Your task to perform on an android device: show emergency info Image 0: 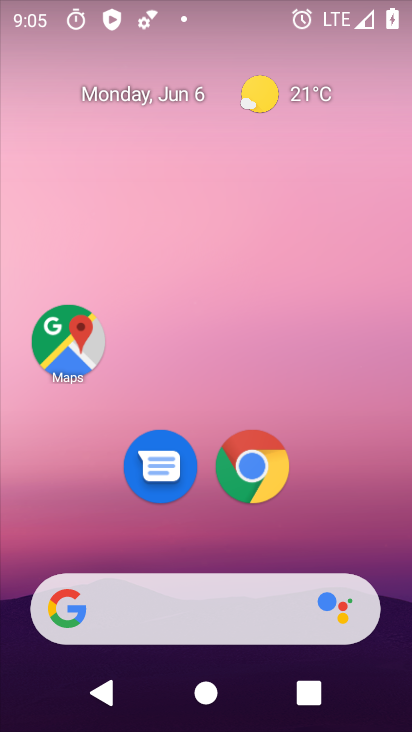
Step 0: drag from (275, 272) to (289, 228)
Your task to perform on an android device: show emergency info Image 1: 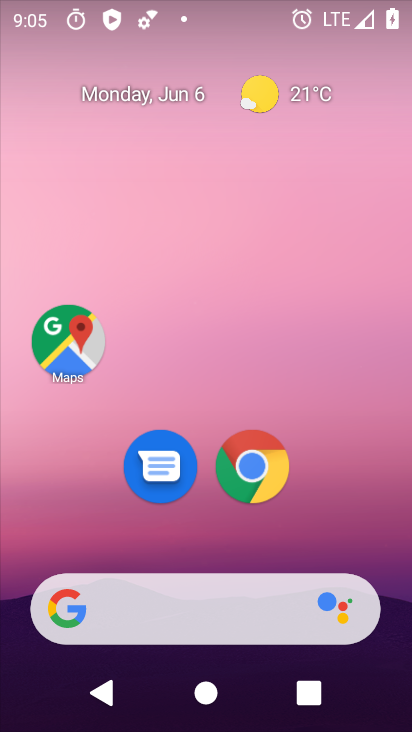
Step 1: drag from (216, 555) to (37, 159)
Your task to perform on an android device: show emergency info Image 2: 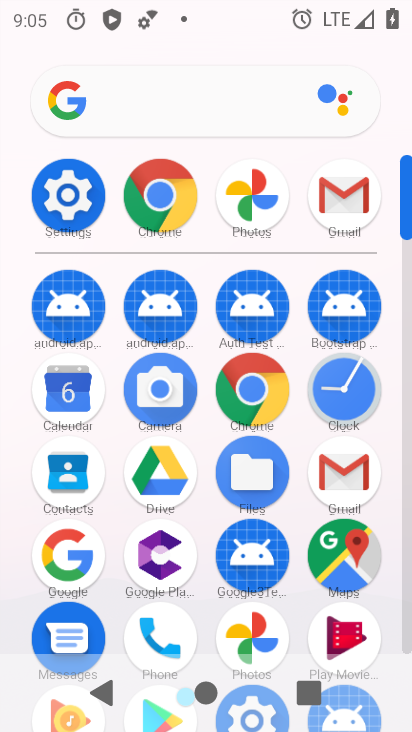
Step 2: click (70, 194)
Your task to perform on an android device: show emergency info Image 3: 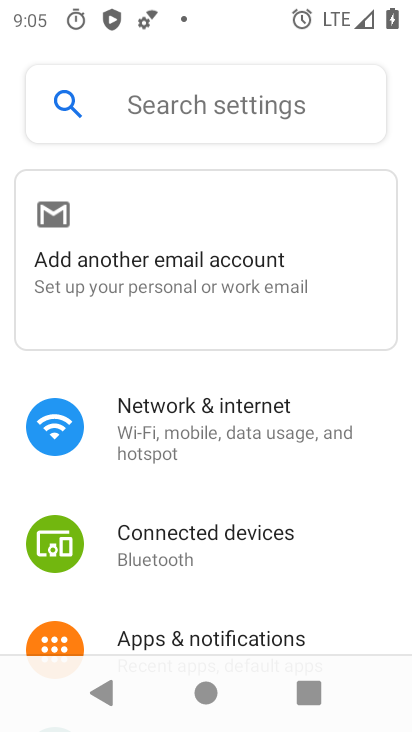
Step 3: drag from (214, 497) to (230, 131)
Your task to perform on an android device: show emergency info Image 4: 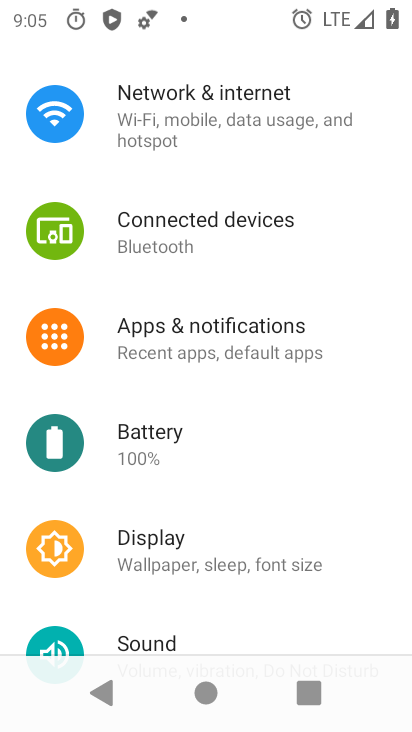
Step 4: drag from (156, 252) to (214, 691)
Your task to perform on an android device: show emergency info Image 5: 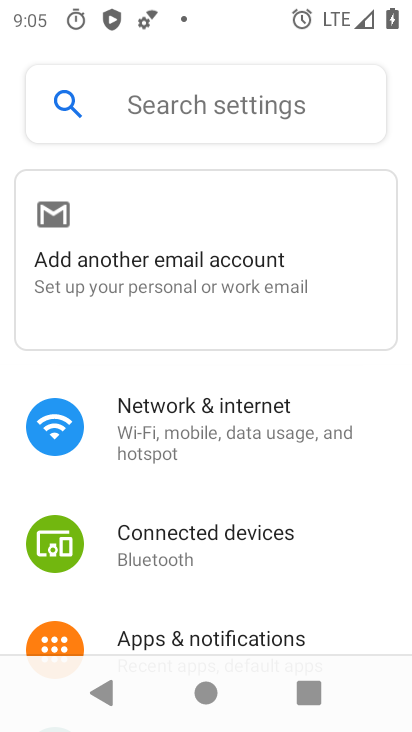
Step 5: drag from (221, 591) to (319, 112)
Your task to perform on an android device: show emergency info Image 6: 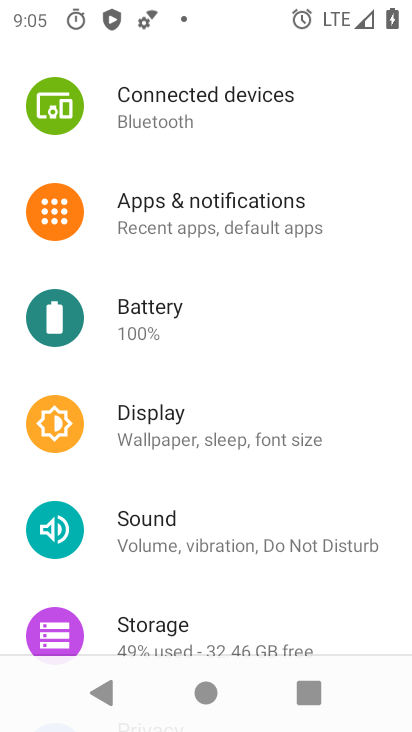
Step 6: drag from (209, 540) to (283, 20)
Your task to perform on an android device: show emergency info Image 7: 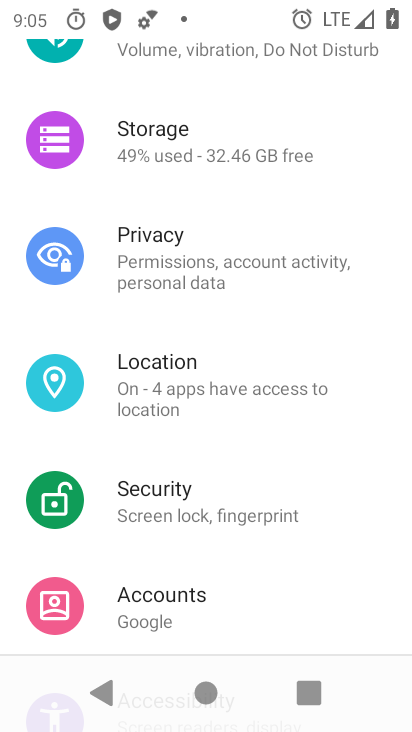
Step 7: drag from (176, 616) to (256, 137)
Your task to perform on an android device: show emergency info Image 8: 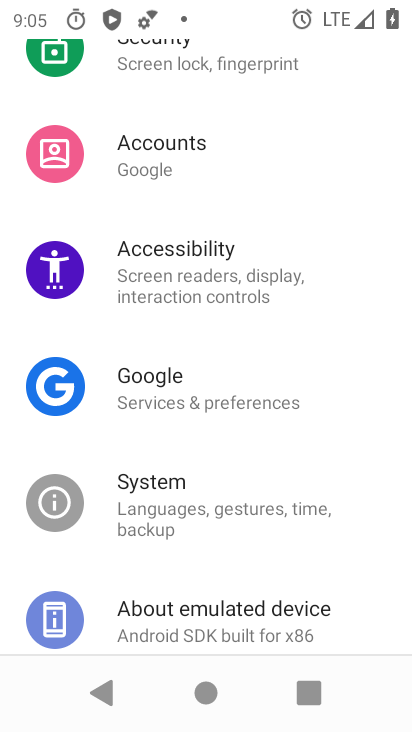
Step 8: click (208, 616)
Your task to perform on an android device: show emergency info Image 9: 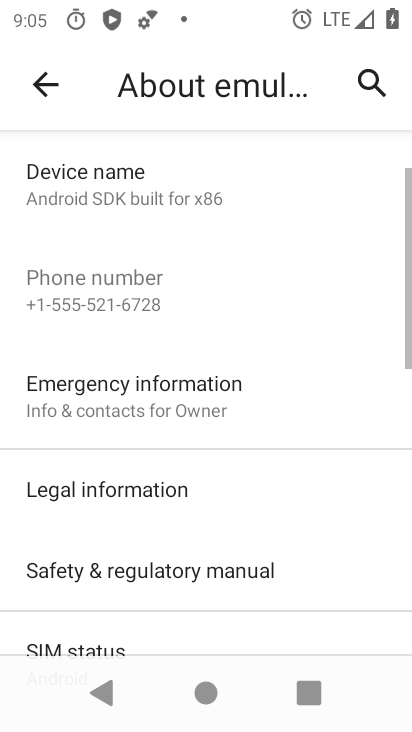
Step 9: click (142, 404)
Your task to perform on an android device: show emergency info Image 10: 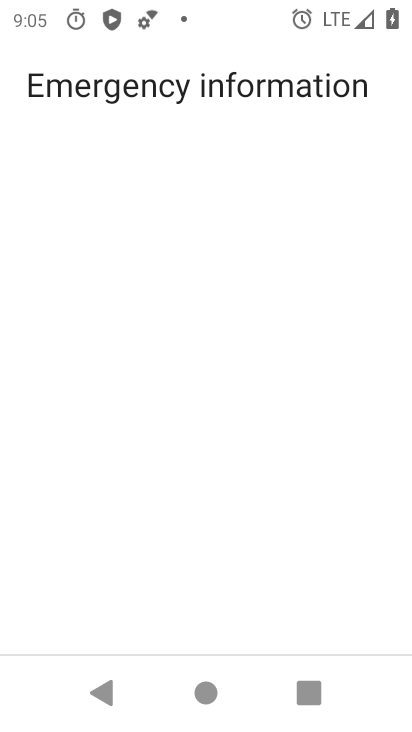
Step 10: task complete